Your task to perform on an android device: Open Maps and search for coffee Image 0: 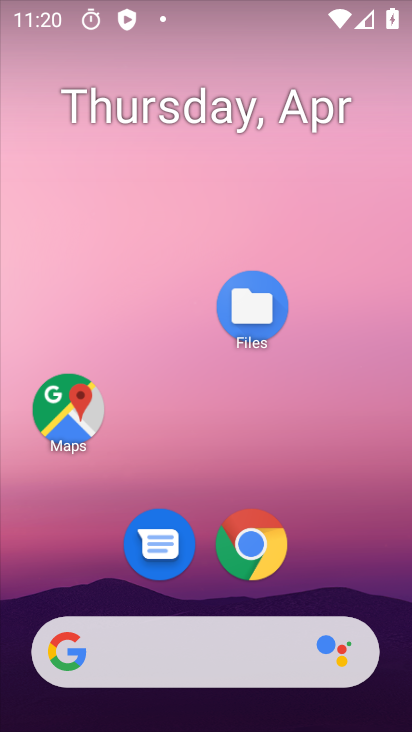
Step 0: click (58, 455)
Your task to perform on an android device: Open Maps and search for coffee Image 1: 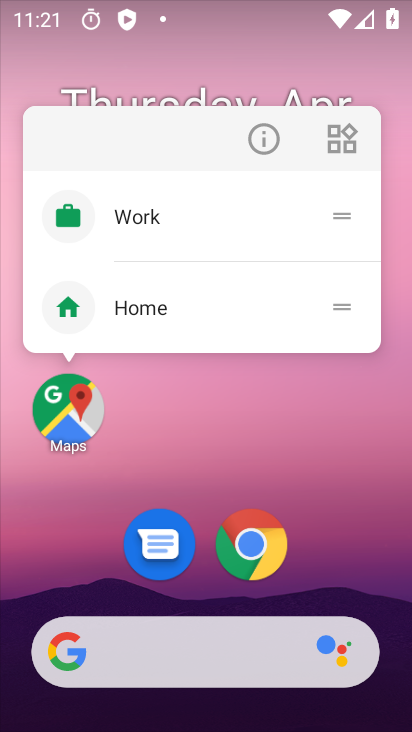
Step 1: click (273, 144)
Your task to perform on an android device: Open Maps and search for coffee Image 2: 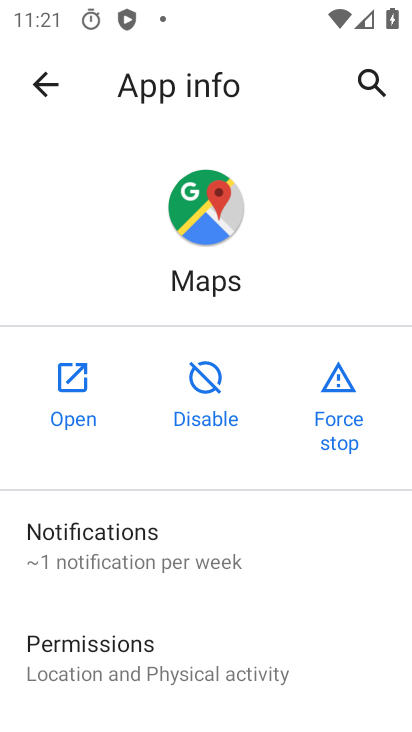
Step 2: click (77, 415)
Your task to perform on an android device: Open Maps and search for coffee Image 3: 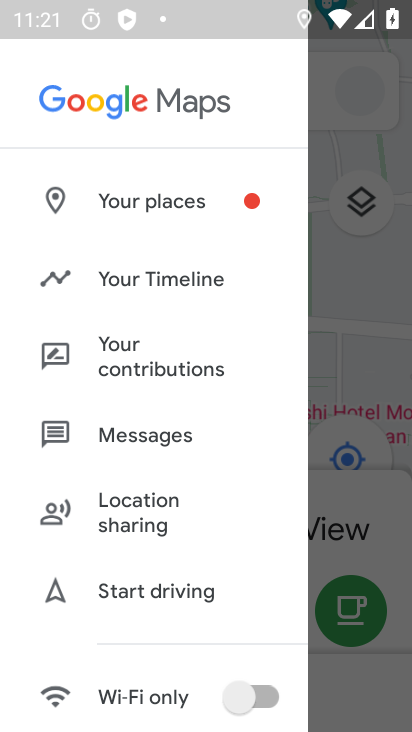
Step 3: click (384, 347)
Your task to perform on an android device: Open Maps and search for coffee Image 4: 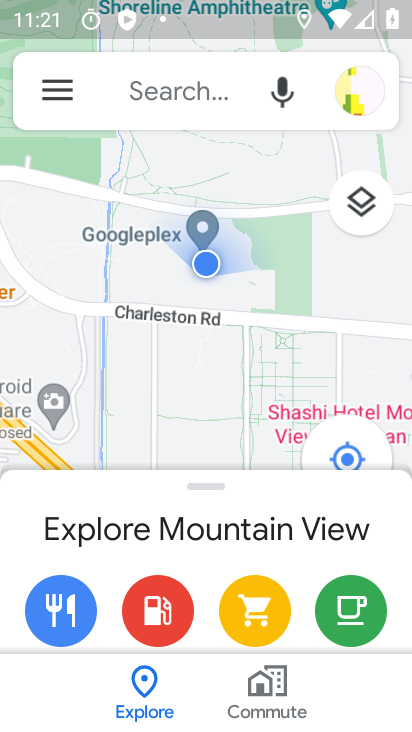
Step 4: click (169, 100)
Your task to perform on an android device: Open Maps and search for coffee Image 5: 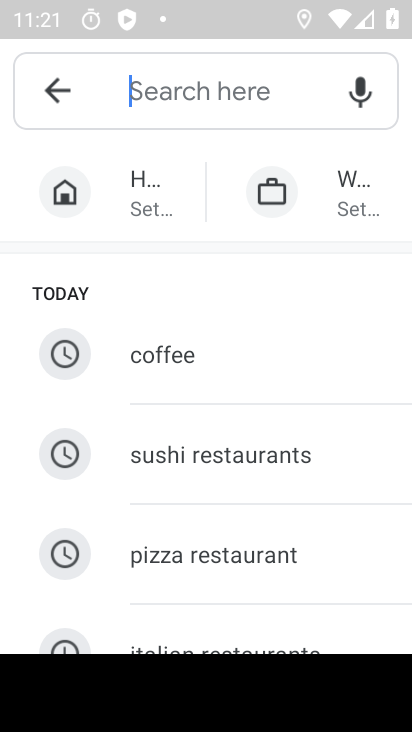
Step 5: click (206, 364)
Your task to perform on an android device: Open Maps and search for coffee Image 6: 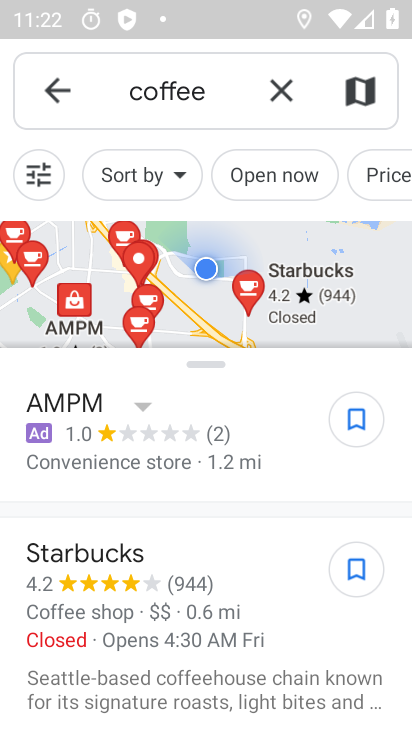
Step 6: task complete